Your task to perform on an android device: change the clock style Image 0: 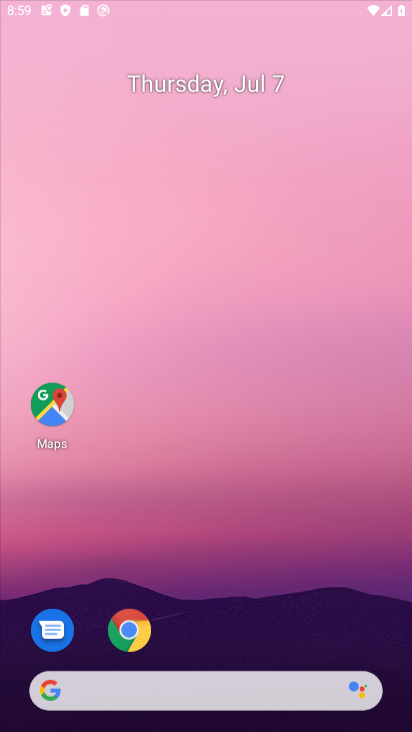
Step 0: drag from (242, 350) to (170, 48)
Your task to perform on an android device: change the clock style Image 1: 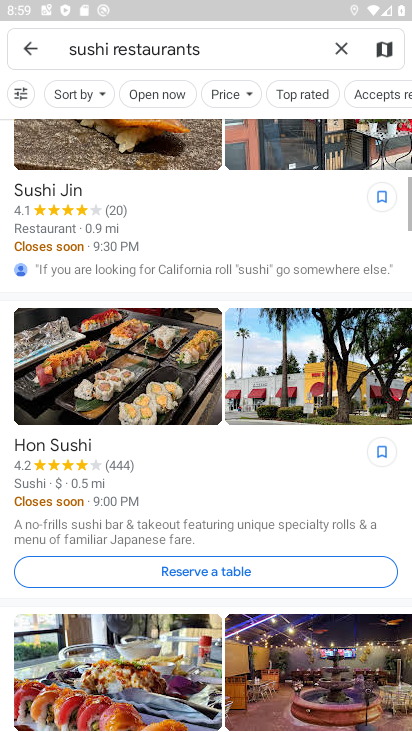
Step 1: click (32, 50)
Your task to perform on an android device: change the clock style Image 2: 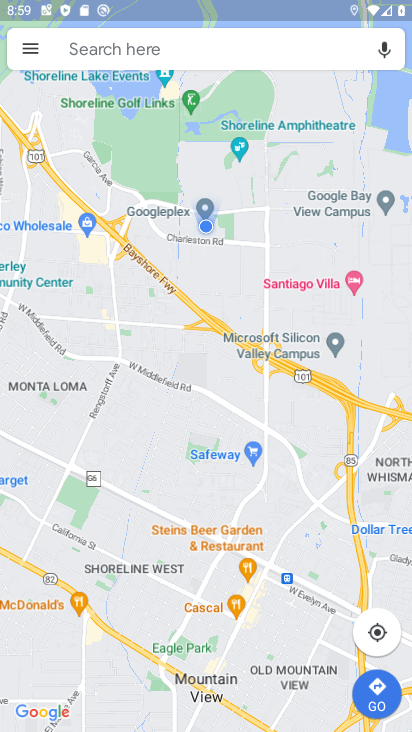
Step 2: press home button
Your task to perform on an android device: change the clock style Image 3: 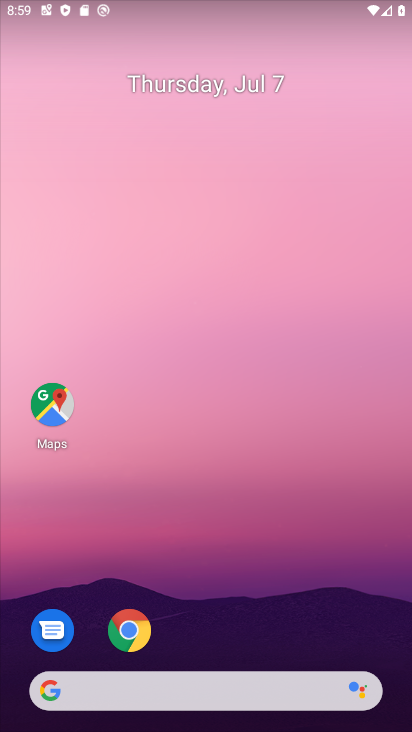
Step 3: drag from (307, 510) to (307, 114)
Your task to perform on an android device: change the clock style Image 4: 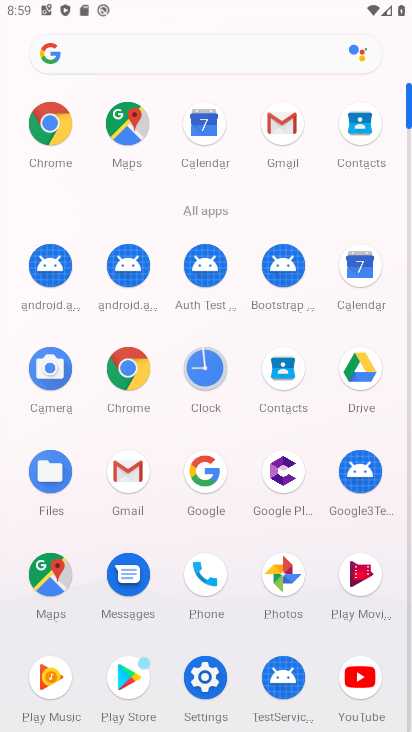
Step 4: click (206, 357)
Your task to perform on an android device: change the clock style Image 5: 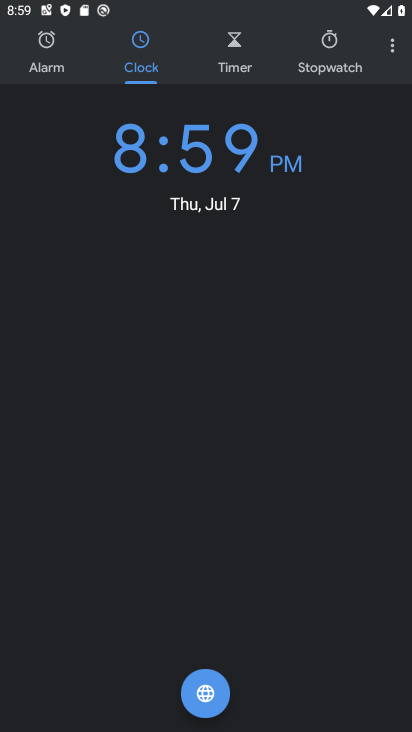
Step 5: click (395, 42)
Your task to perform on an android device: change the clock style Image 6: 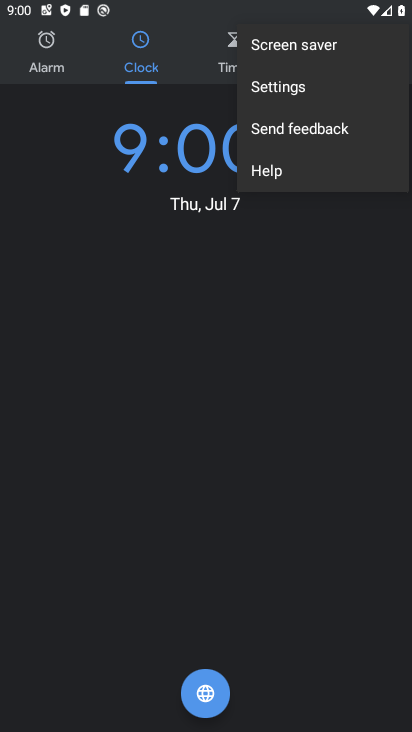
Step 6: click (282, 94)
Your task to perform on an android device: change the clock style Image 7: 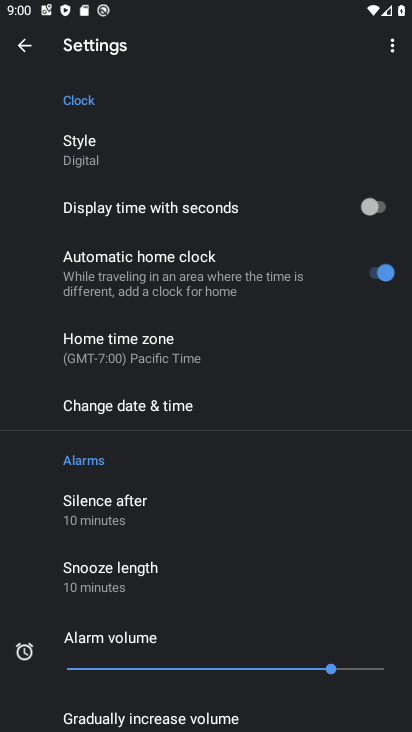
Step 7: click (77, 136)
Your task to perform on an android device: change the clock style Image 8: 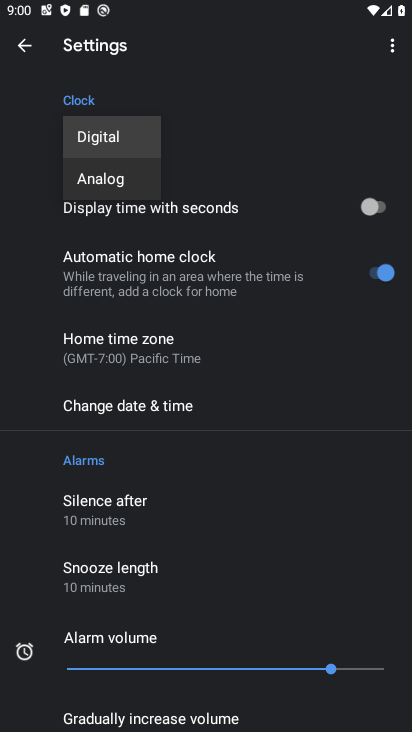
Step 8: click (115, 173)
Your task to perform on an android device: change the clock style Image 9: 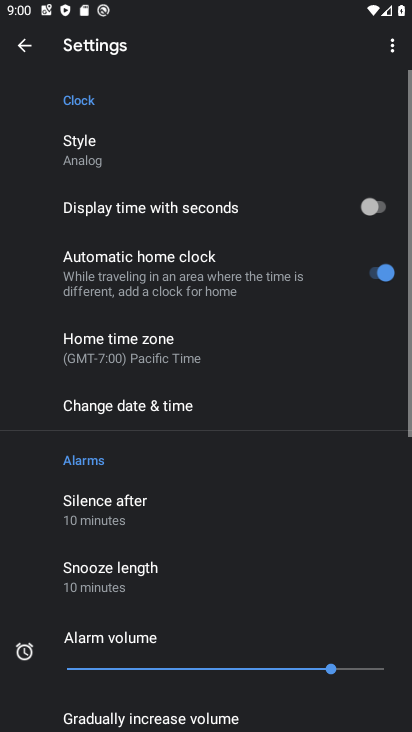
Step 9: task complete